Your task to perform on an android device: open app "eBay: The shopping marketplace" Image 0: 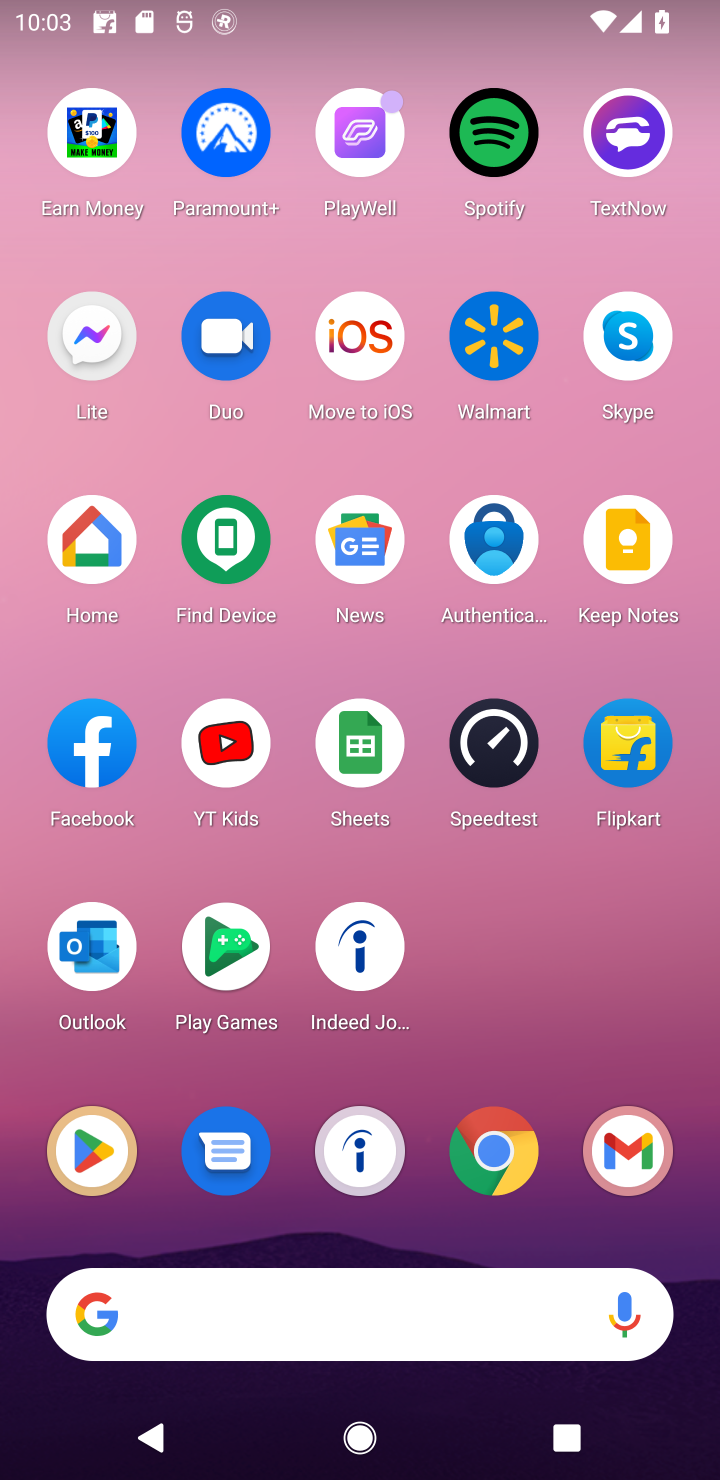
Step 0: click (109, 1148)
Your task to perform on an android device: open app "eBay: The shopping marketplace" Image 1: 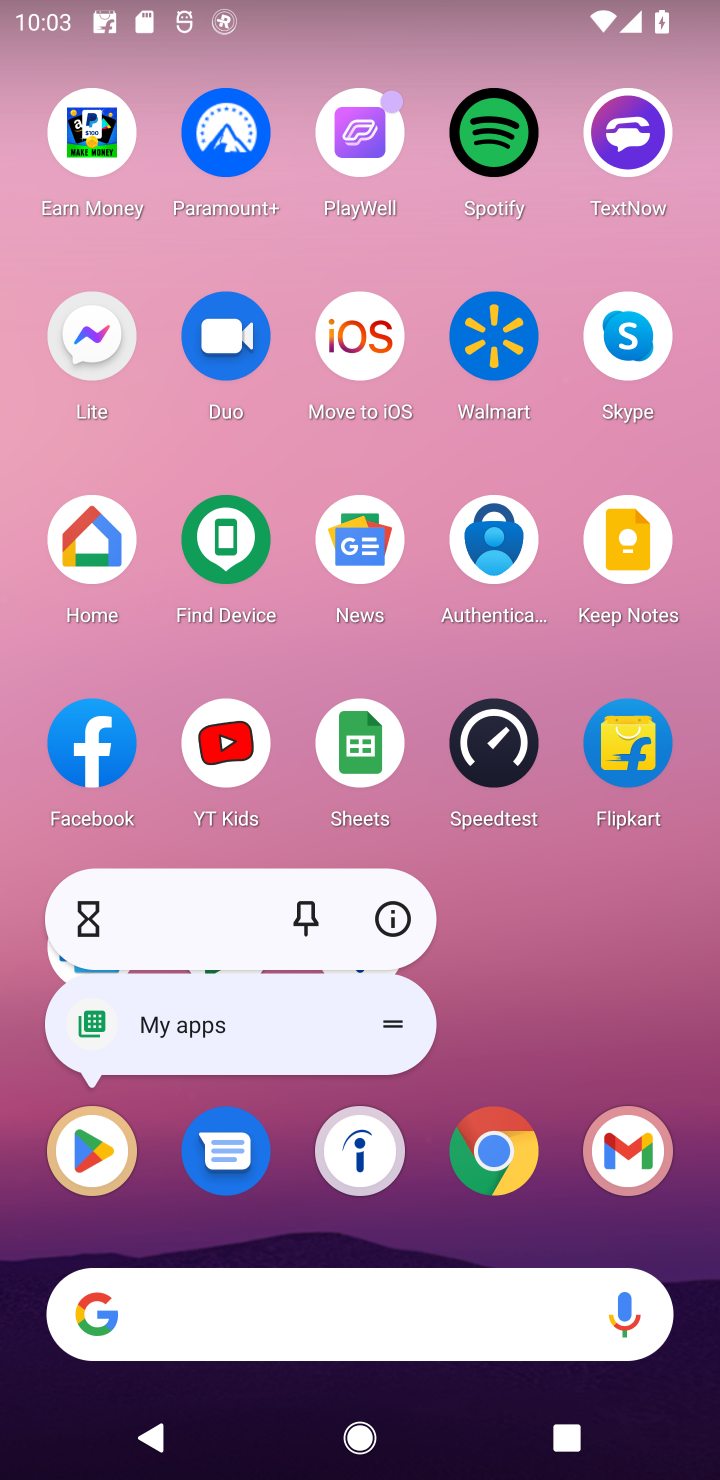
Step 1: click (104, 1175)
Your task to perform on an android device: open app "eBay: The shopping marketplace" Image 2: 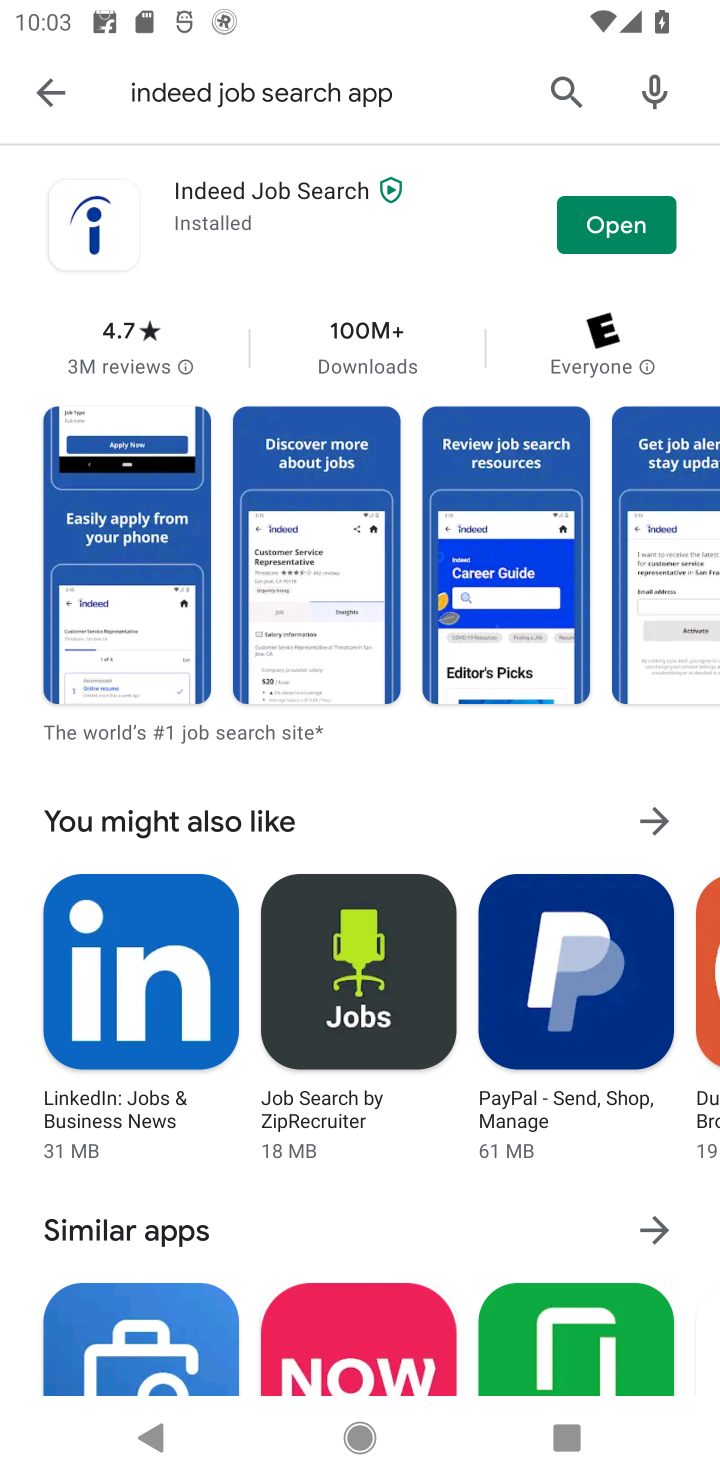
Step 2: click (104, 1175)
Your task to perform on an android device: open app "eBay: The shopping marketplace" Image 3: 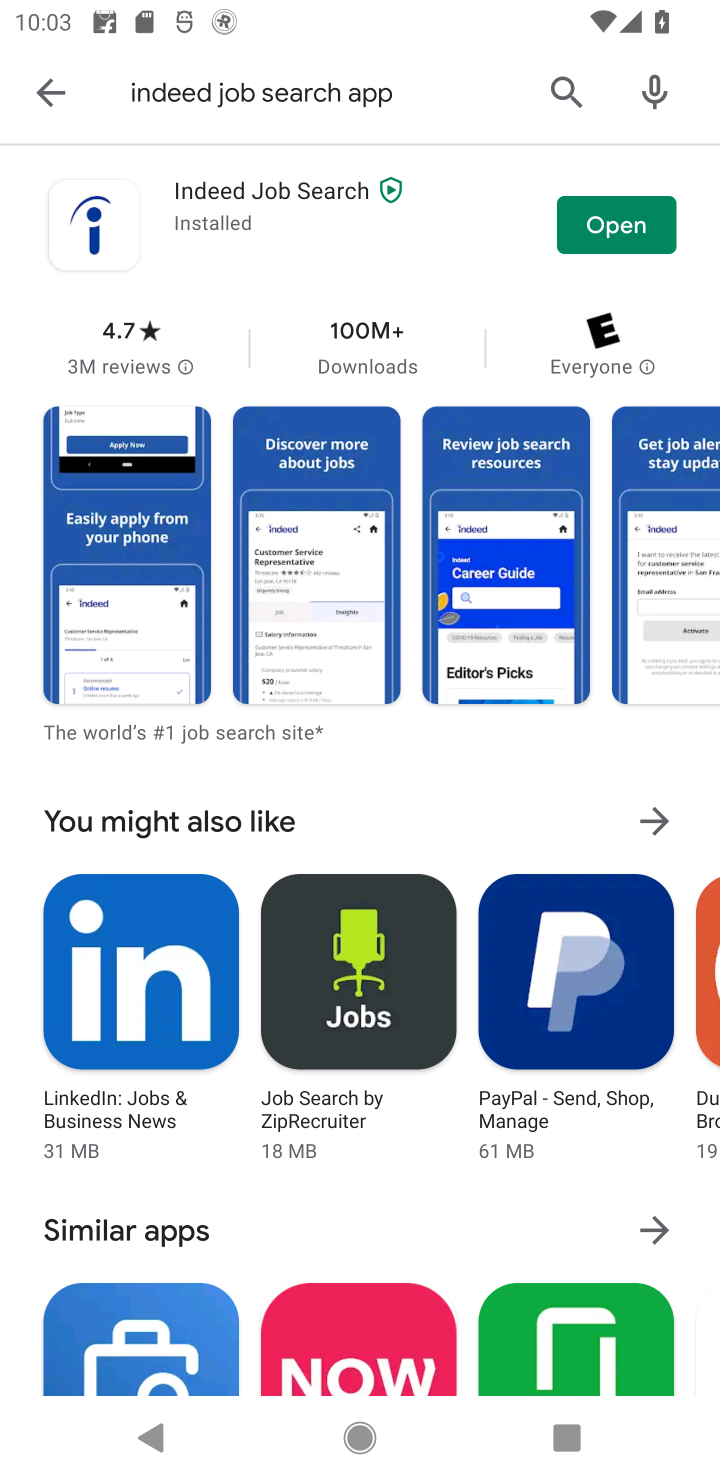
Step 3: click (563, 100)
Your task to perform on an android device: open app "eBay: The shopping marketplace" Image 4: 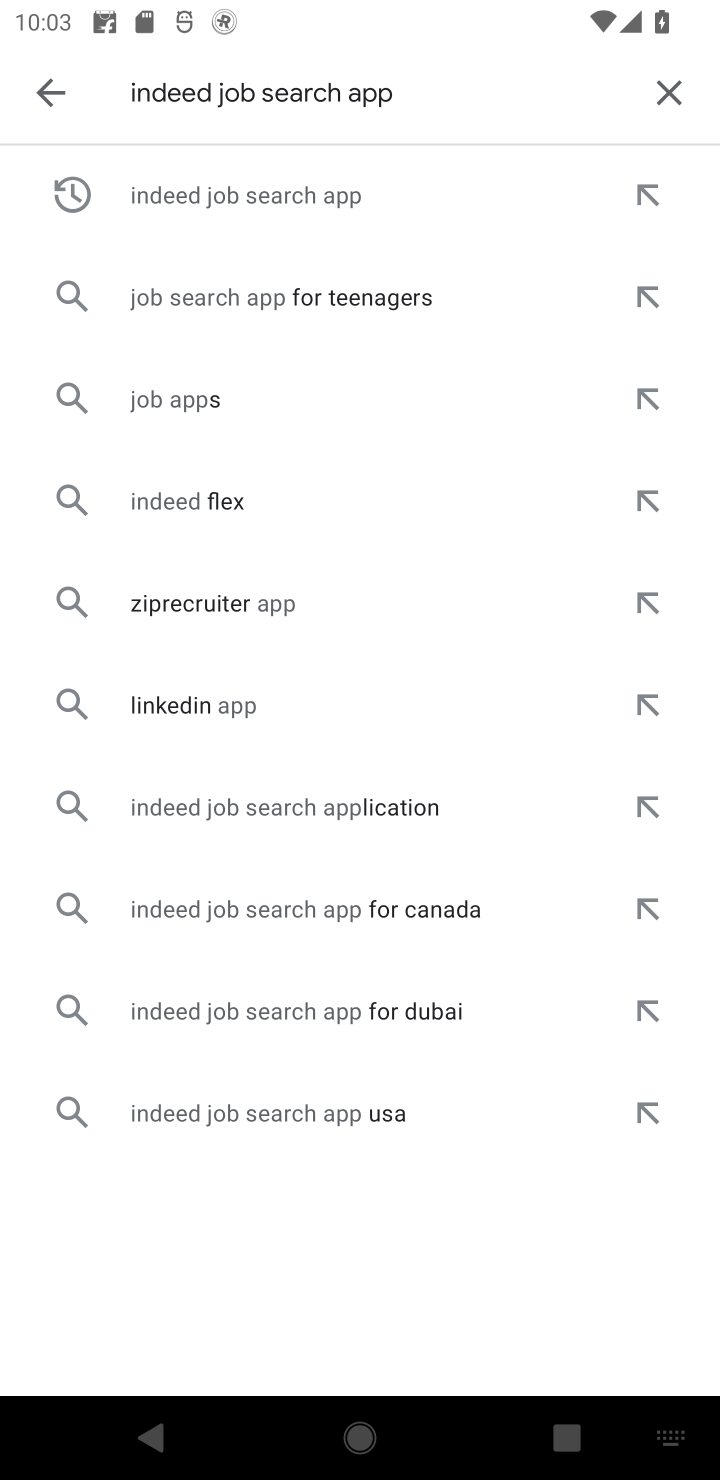
Step 4: click (661, 73)
Your task to perform on an android device: open app "eBay: The shopping marketplace" Image 5: 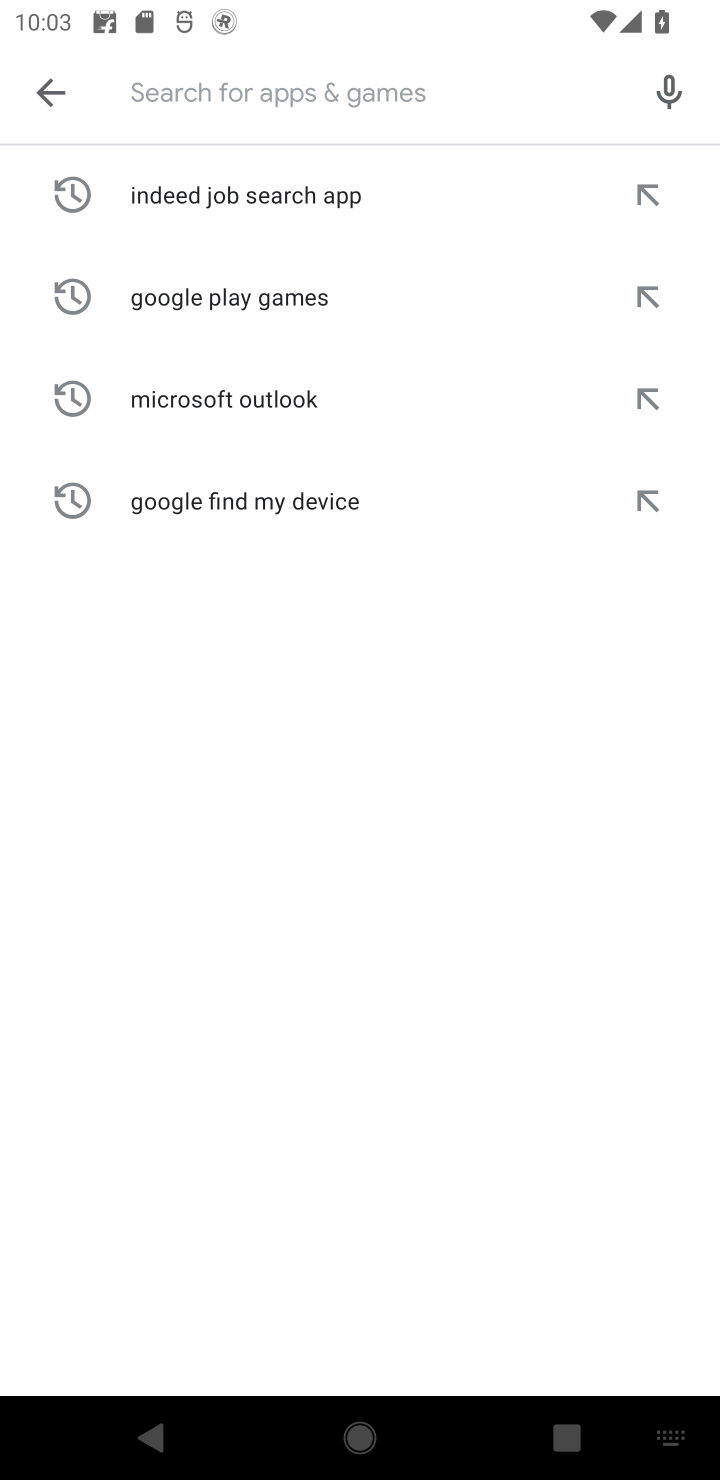
Step 5: type "eBay: The shopping marketplace"
Your task to perform on an android device: open app "eBay: The shopping marketplace" Image 6: 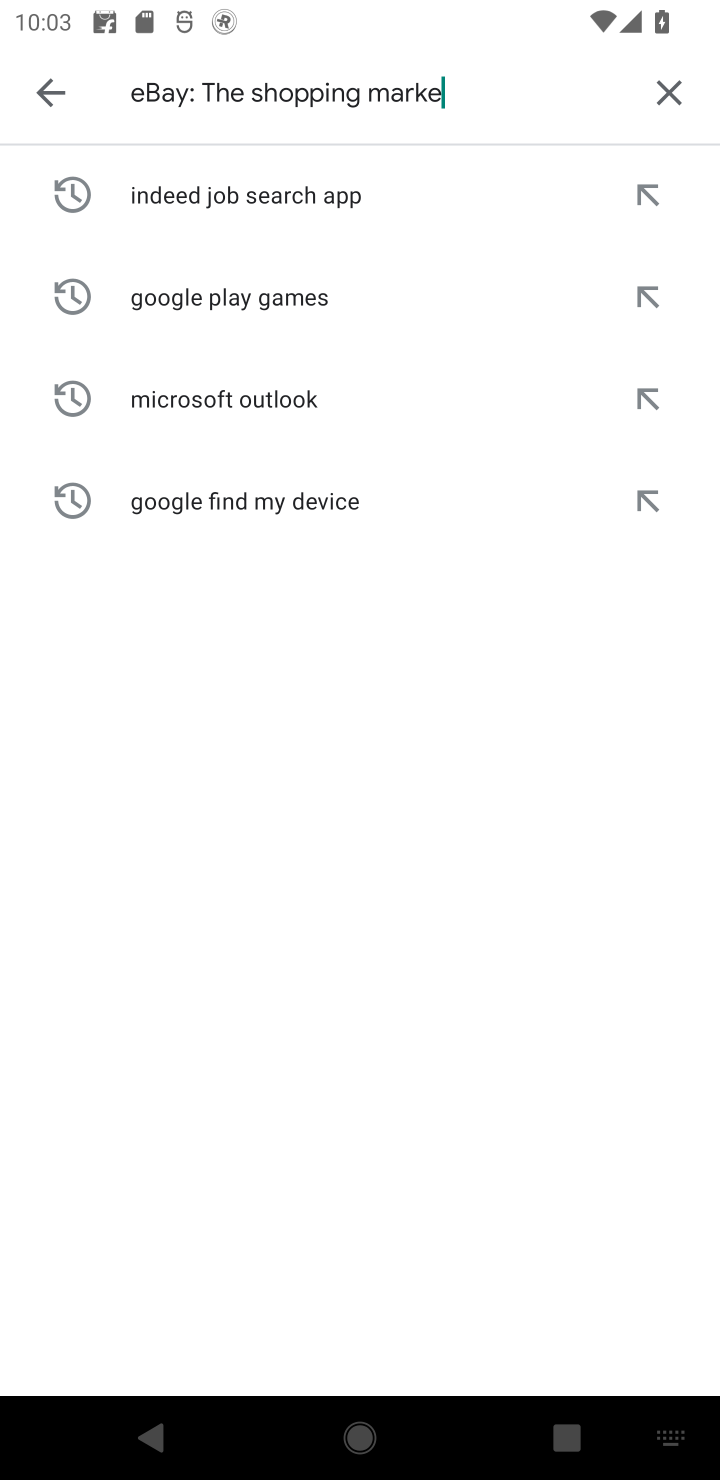
Step 6: type ""
Your task to perform on an android device: open app "eBay: The shopping marketplace" Image 7: 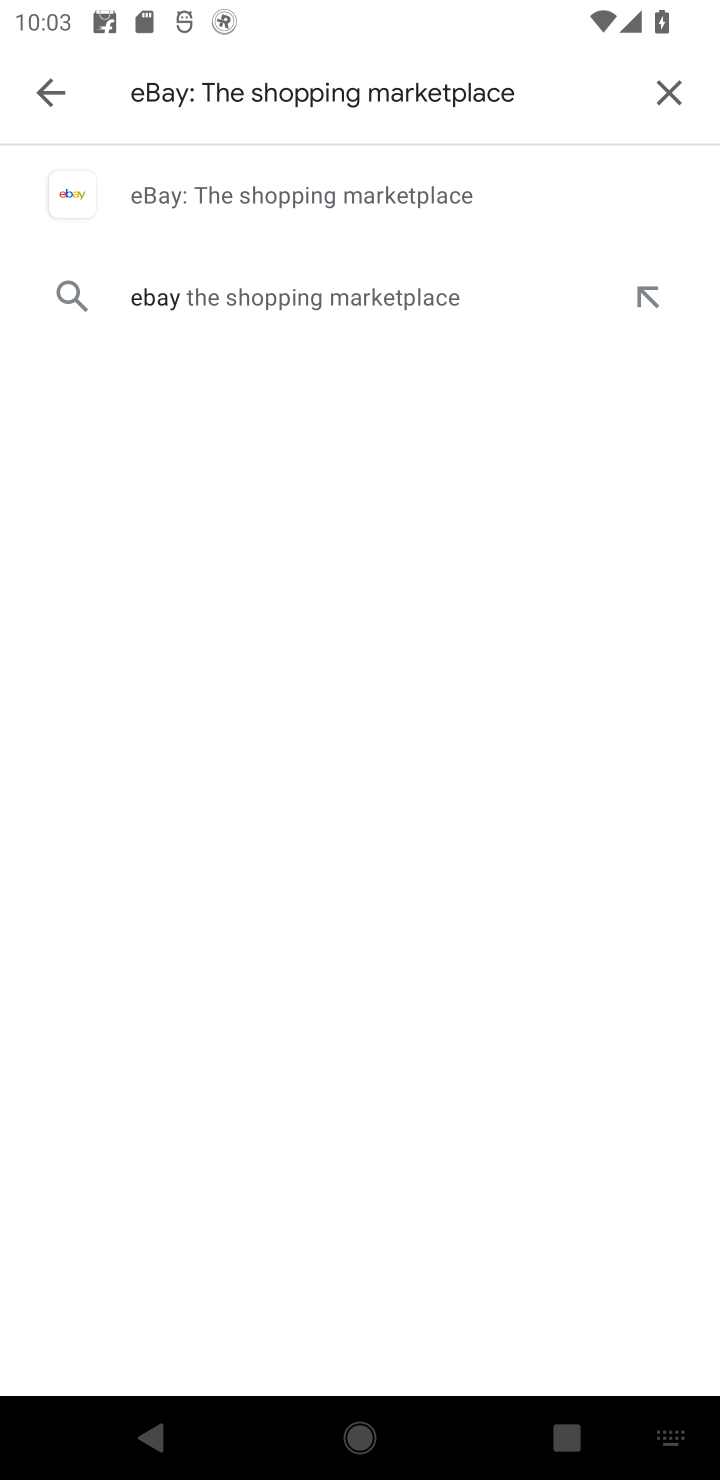
Step 7: click (431, 207)
Your task to perform on an android device: open app "eBay: The shopping marketplace" Image 8: 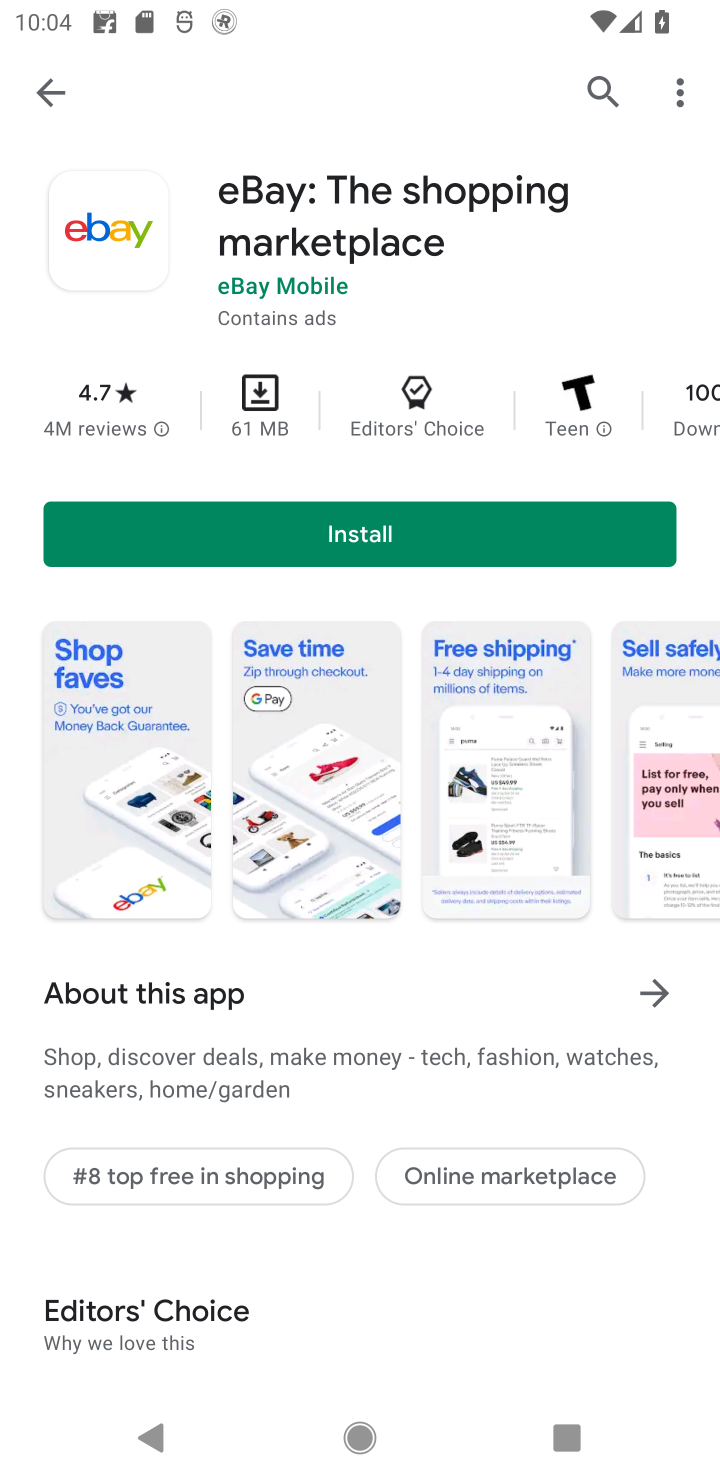
Step 8: task complete